Your task to perform on an android device: install app "Paramount+ | Peak Streaming" Image 0: 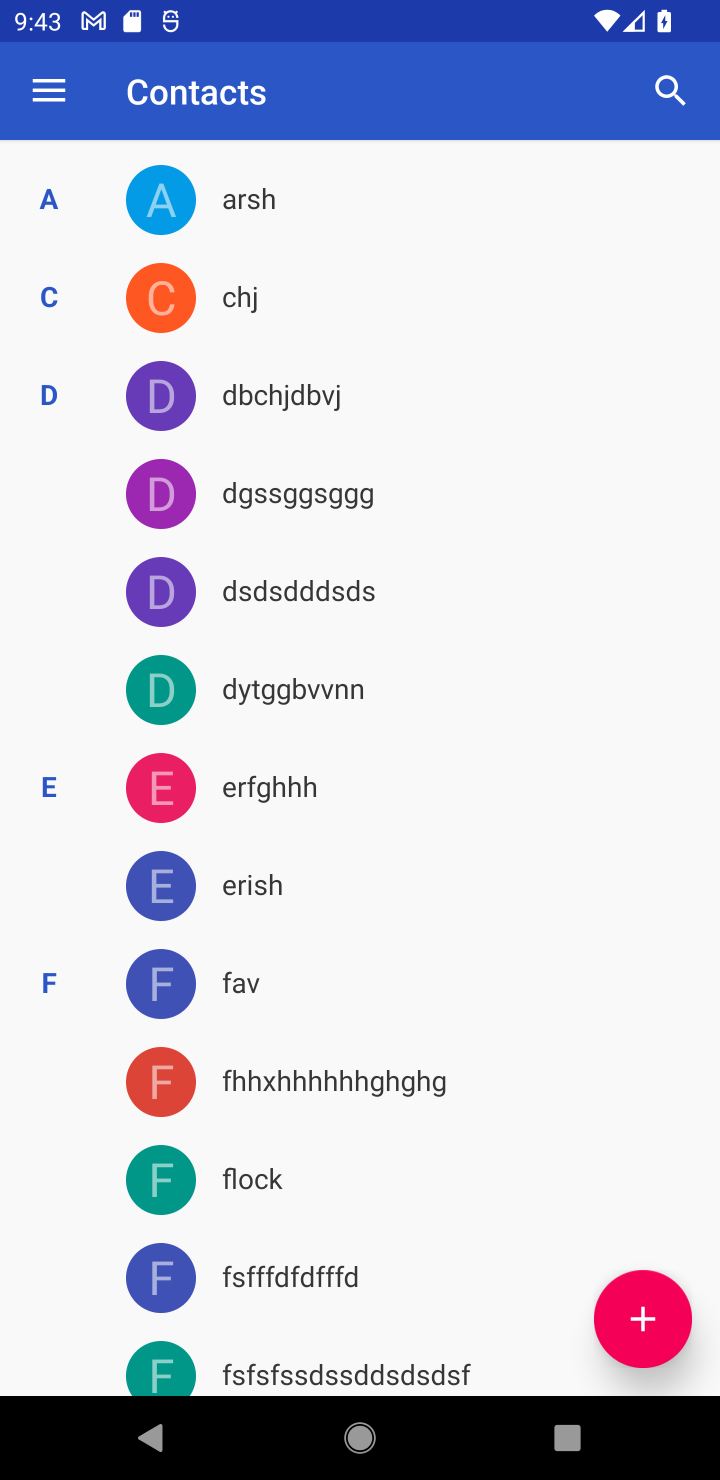
Step 0: press home button
Your task to perform on an android device: install app "Paramount+ | Peak Streaming" Image 1: 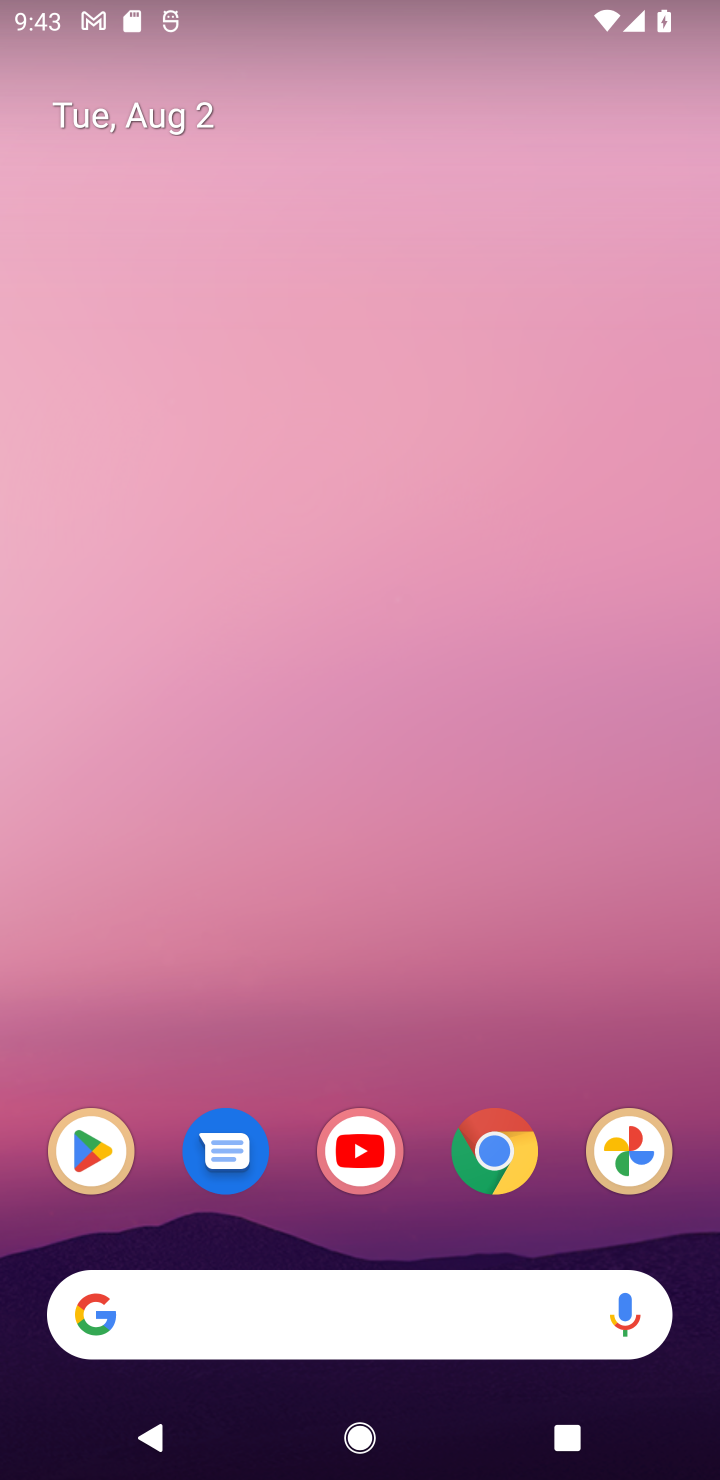
Step 1: drag from (365, 1255) to (371, 1)
Your task to perform on an android device: install app "Paramount+ | Peak Streaming" Image 2: 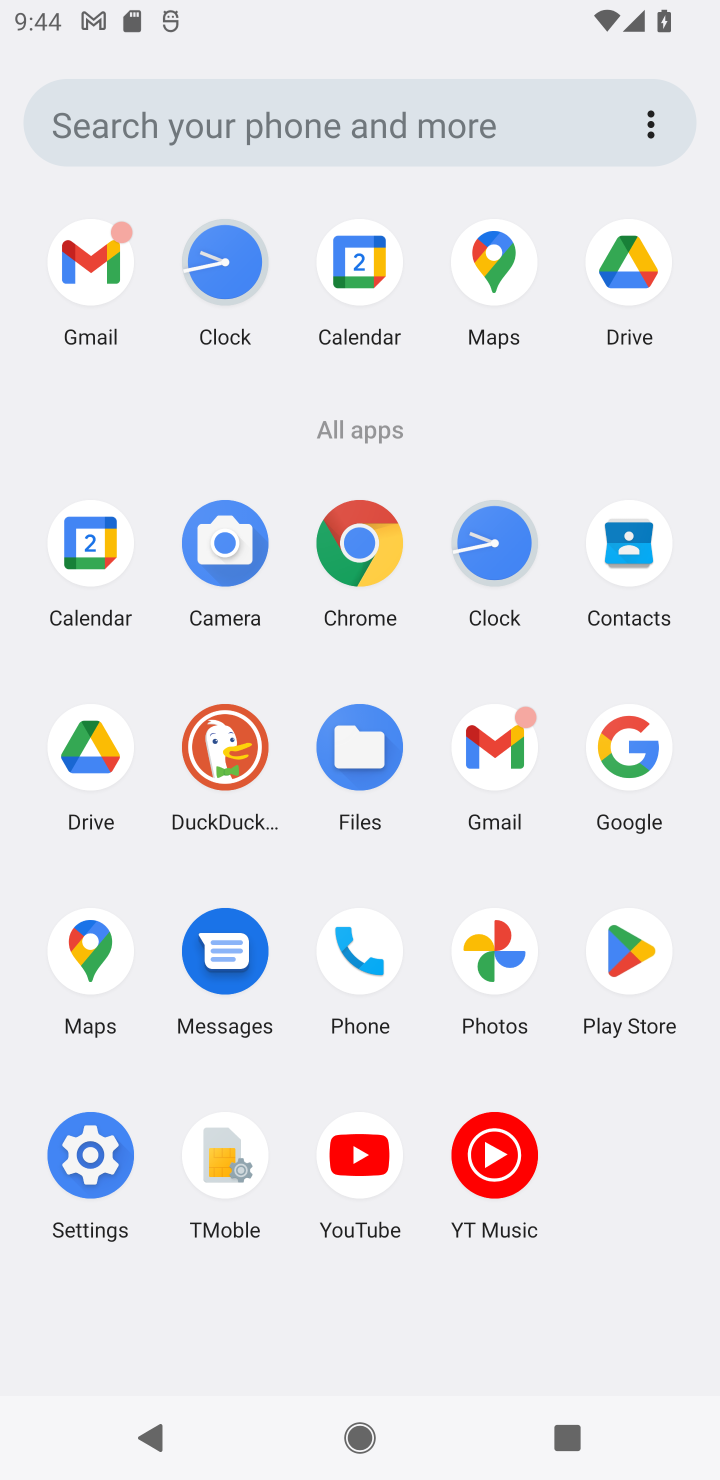
Step 2: click (617, 962)
Your task to perform on an android device: install app "Paramount+ | Peak Streaming" Image 3: 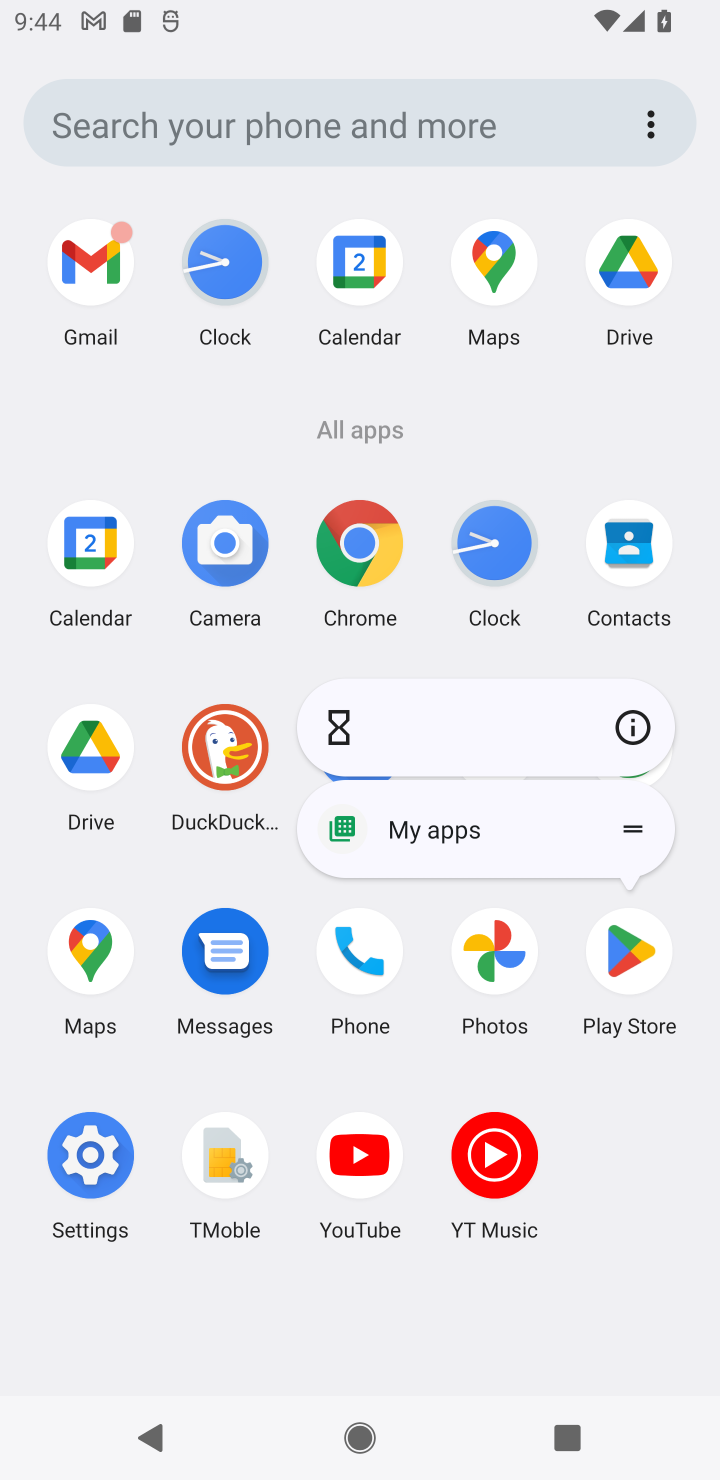
Step 3: click (616, 945)
Your task to perform on an android device: install app "Paramount+ | Peak Streaming" Image 4: 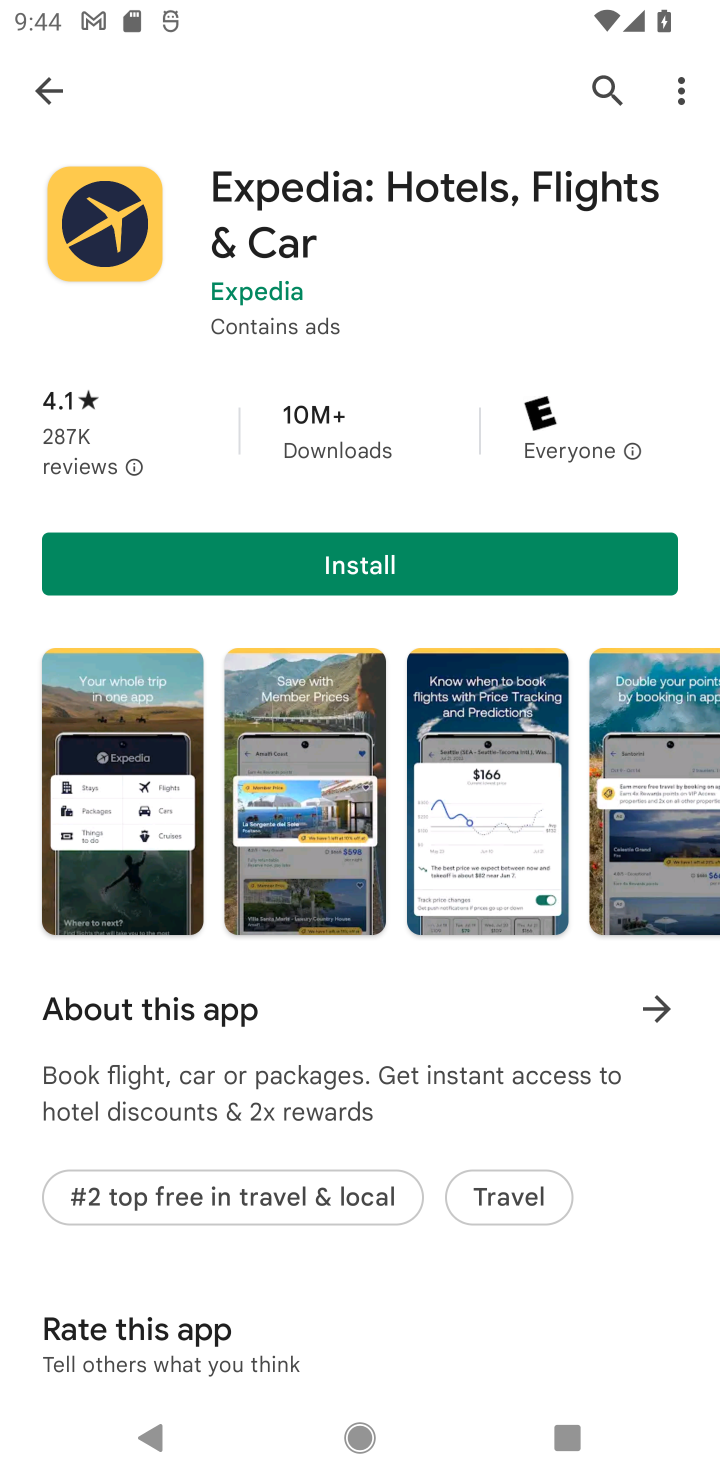
Step 4: click (41, 90)
Your task to perform on an android device: install app "Paramount+ | Peak Streaming" Image 5: 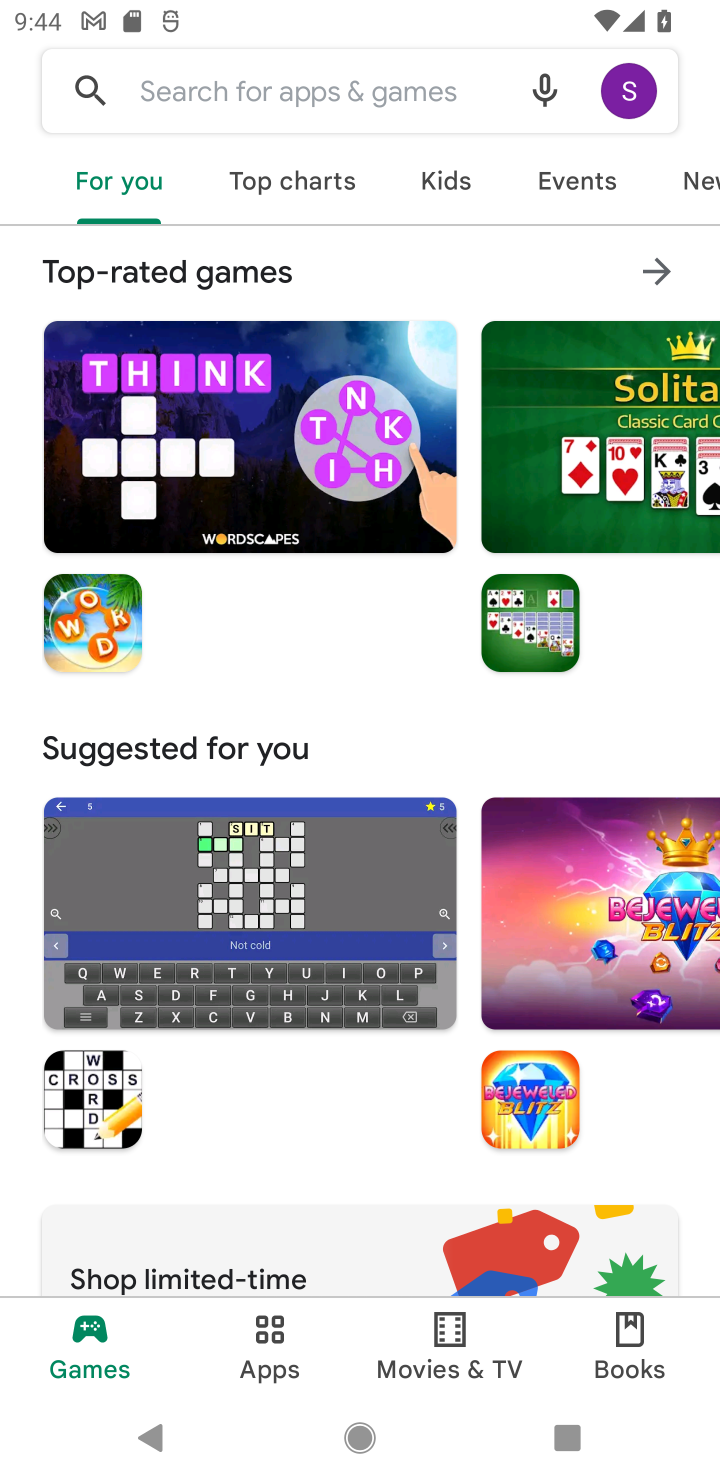
Step 5: click (226, 93)
Your task to perform on an android device: install app "Paramount+ | Peak Streaming" Image 6: 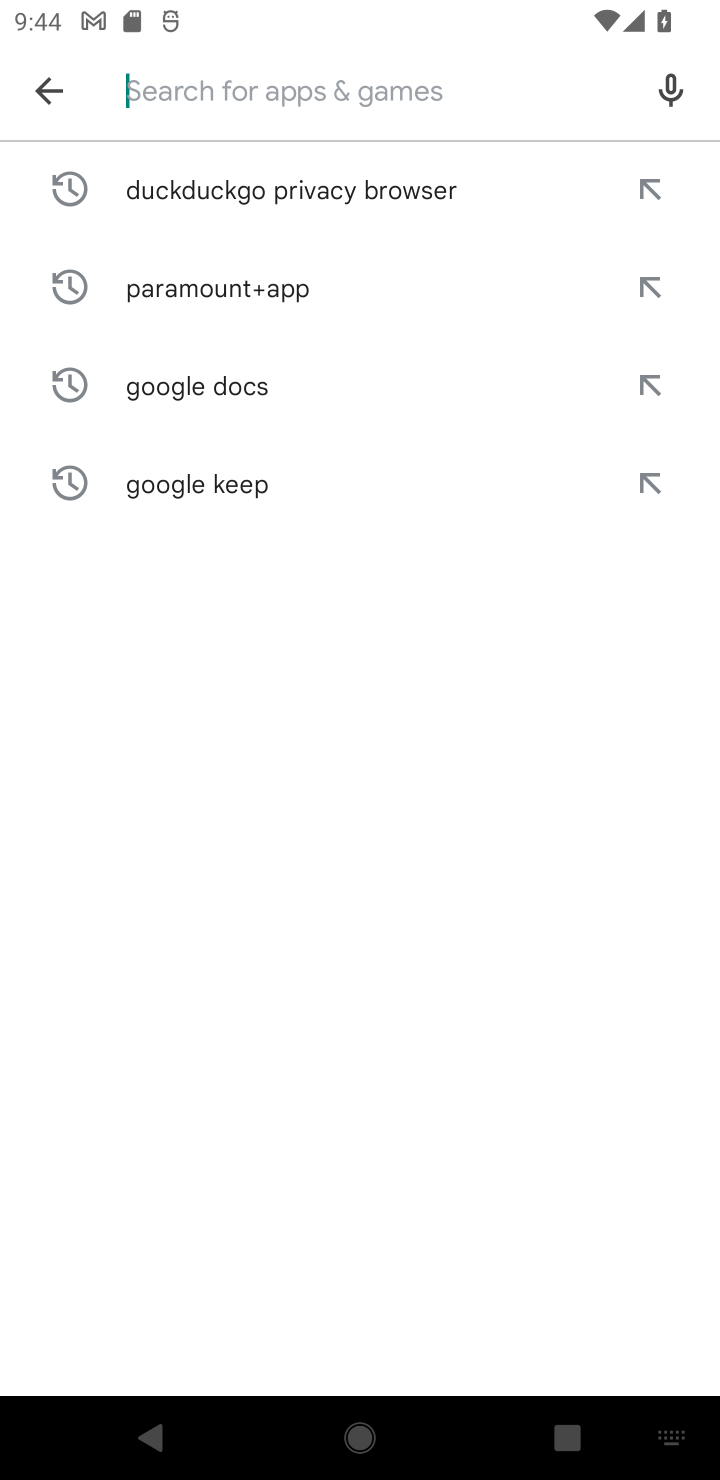
Step 6: type "aramount+ | Peak Streaming"
Your task to perform on an android device: install app "Paramount+ | Peak Streaming" Image 7: 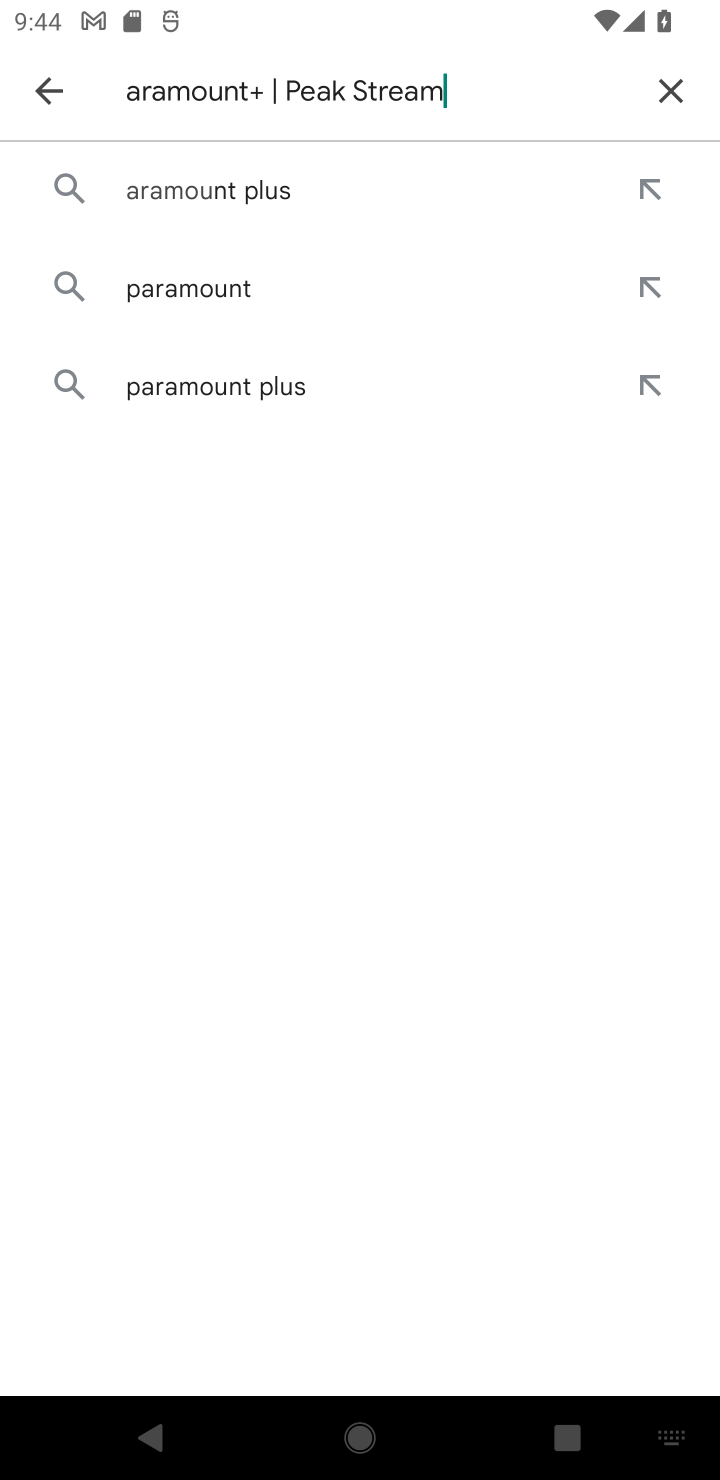
Step 7: type ""
Your task to perform on an android device: install app "Paramount+ | Peak Streaming" Image 8: 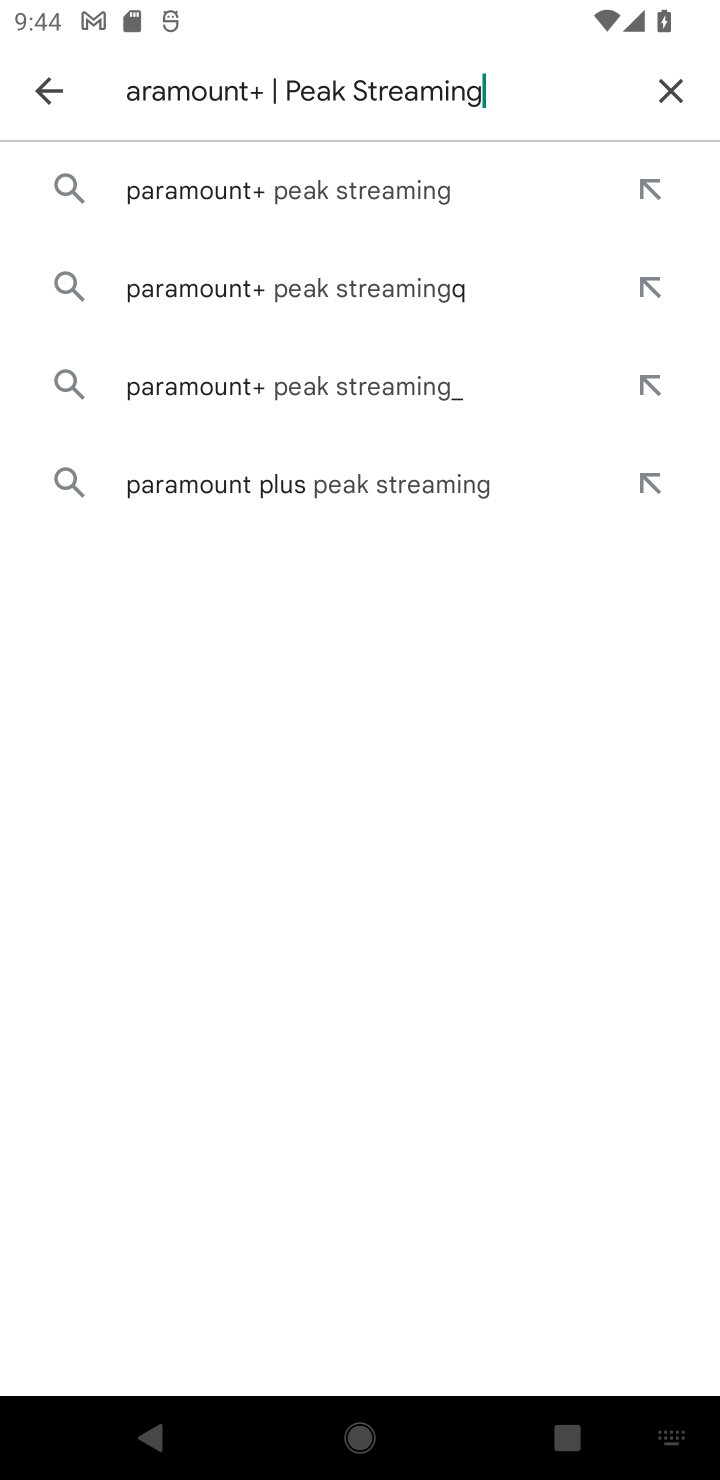
Step 8: click (170, 201)
Your task to perform on an android device: install app "Paramount+ | Peak Streaming" Image 9: 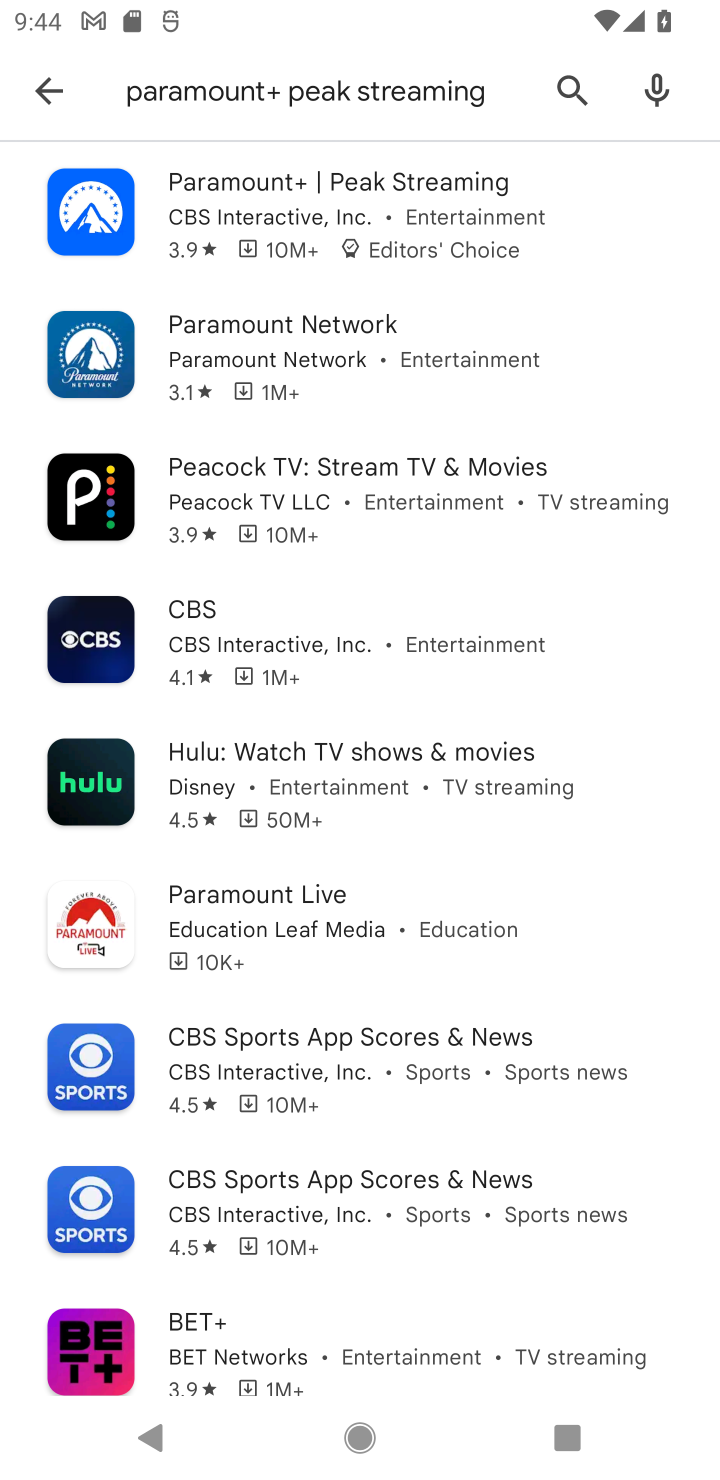
Step 9: click (347, 173)
Your task to perform on an android device: install app "Paramount+ | Peak Streaming" Image 10: 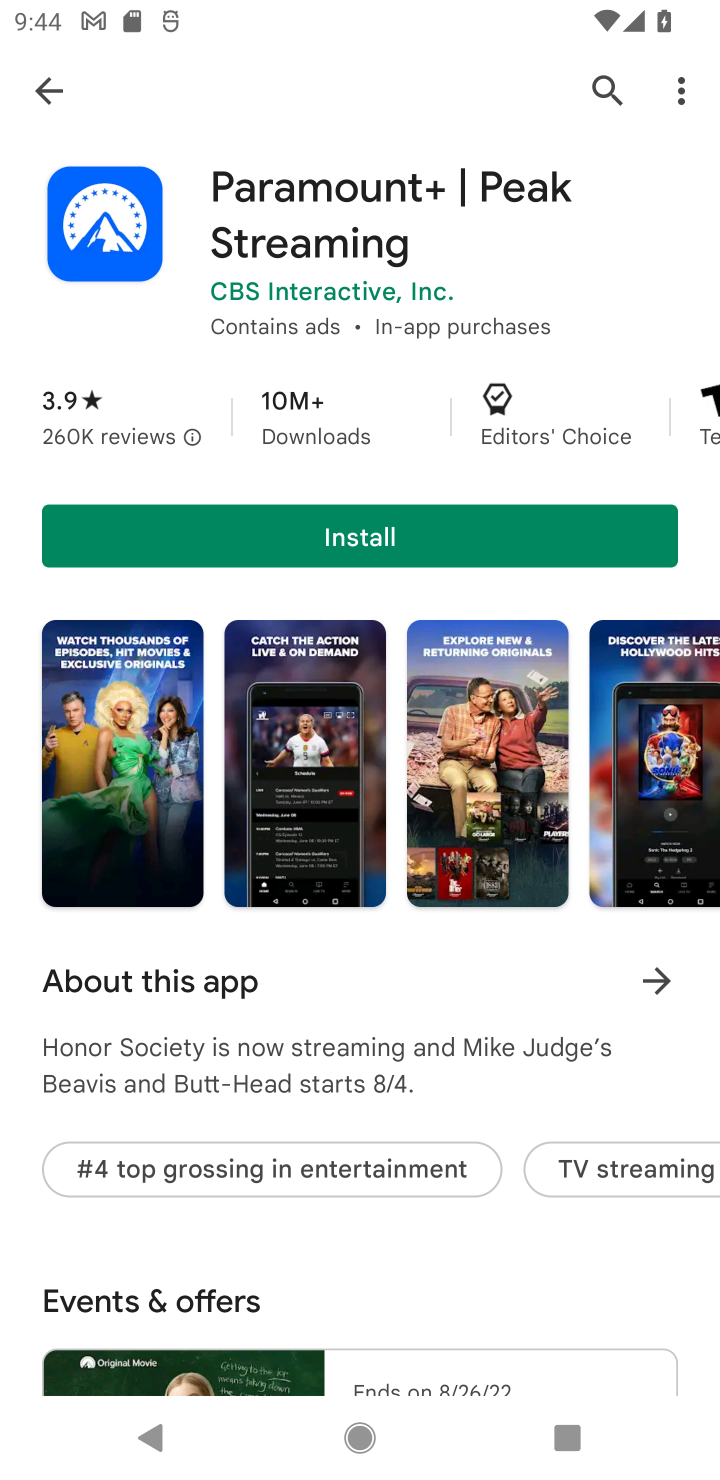
Step 10: click (411, 556)
Your task to perform on an android device: install app "Paramount+ | Peak Streaming" Image 11: 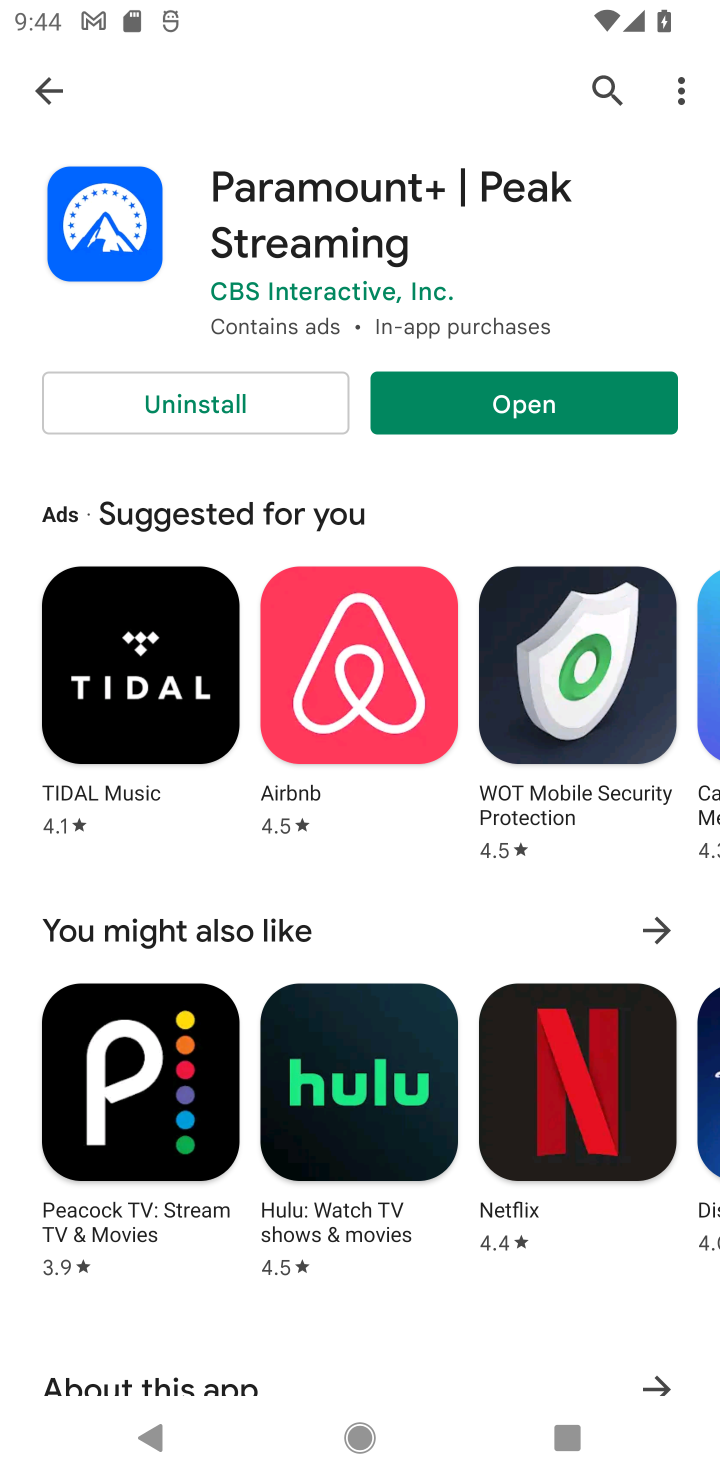
Step 11: click (448, 378)
Your task to perform on an android device: install app "Paramount+ | Peak Streaming" Image 12: 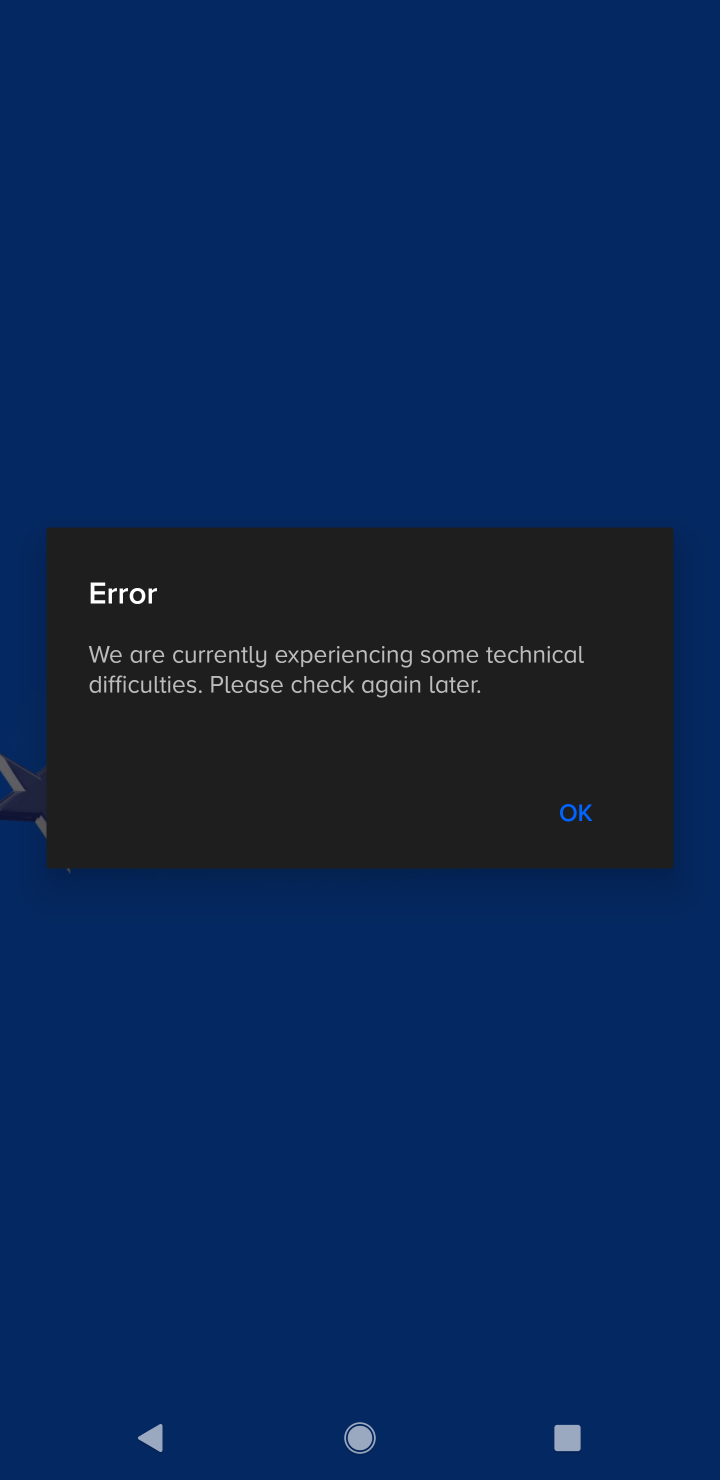
Step 12: click (592, 811)
Your task to perform on an android device: install app "Paramount+ | Peak Streaming" Image 13: 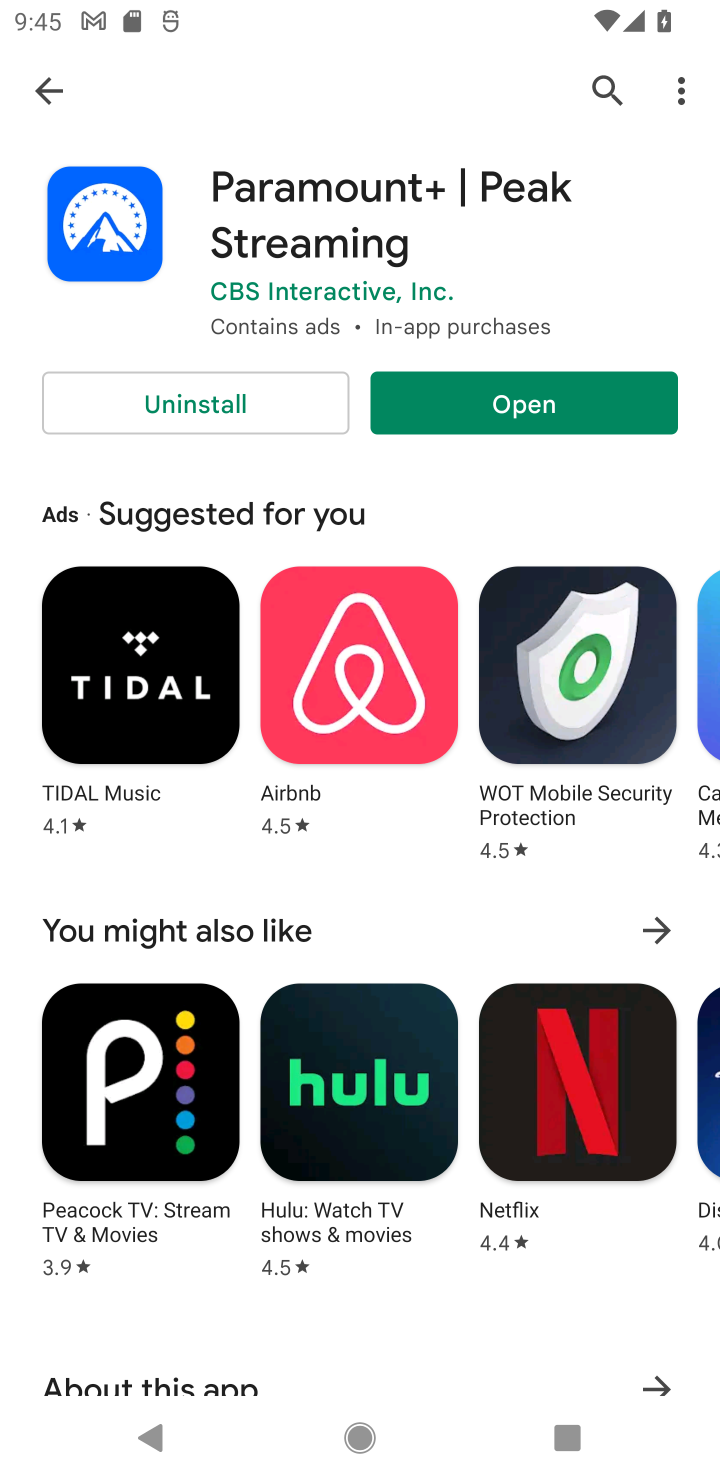
Step 13: click (521, 417)
Your task to perform on an android device: install app "Paramount+ | Peak Streaming" Image 14: 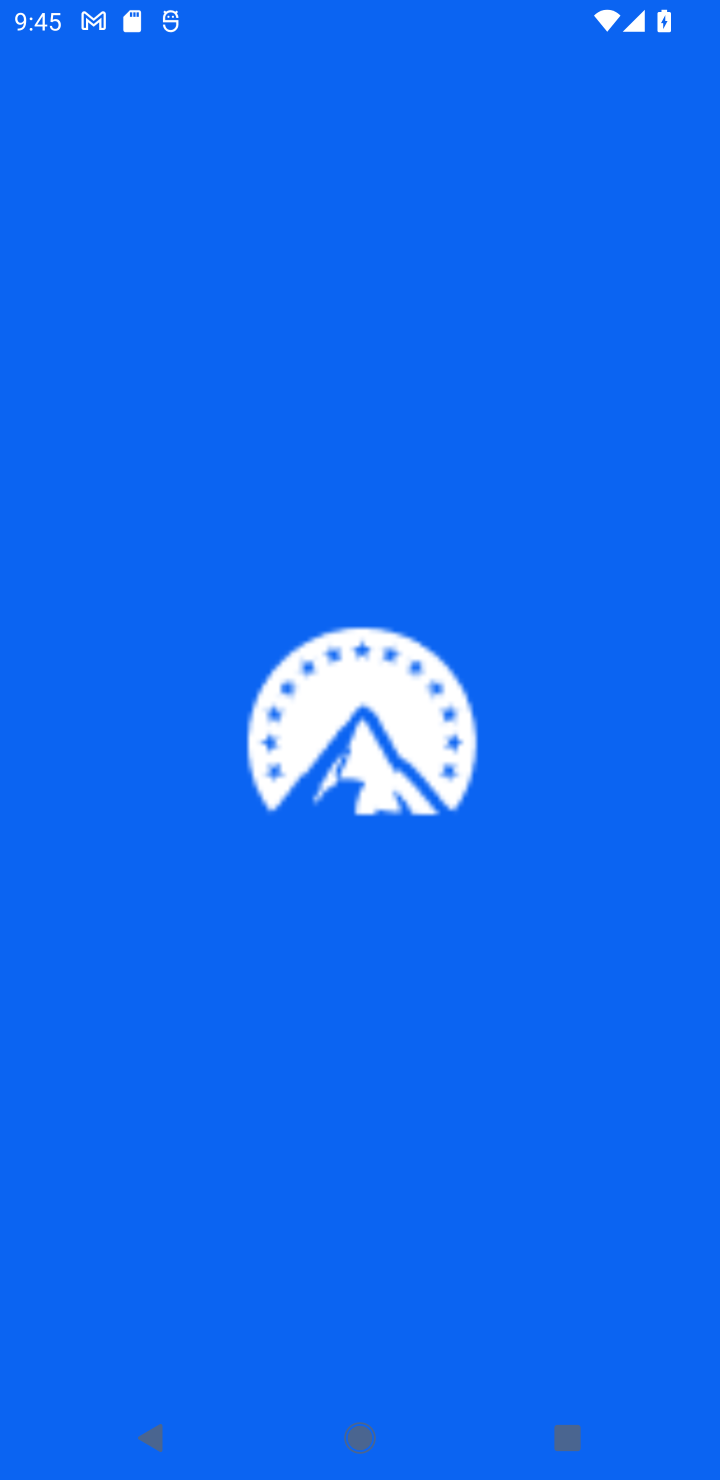
Step 14: task complete